Your task to perform on an android device: open app "Messenger Lite" (install if not already installed) Image 0: 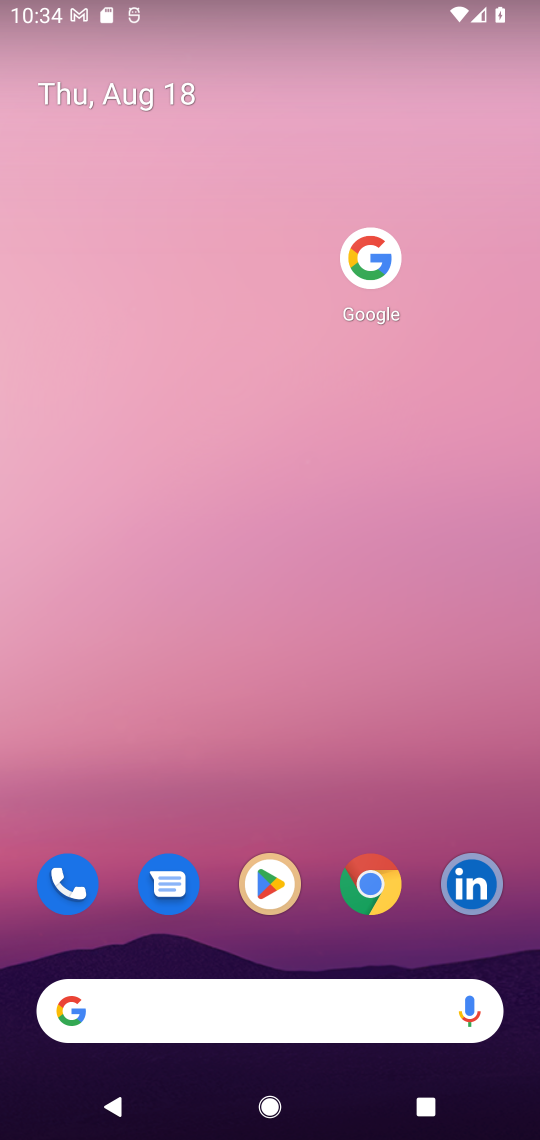
Step 0: click (269, 905)
Your task to perform on an android device: open app "Messenger Lite" (install if not already installed) Image 1: 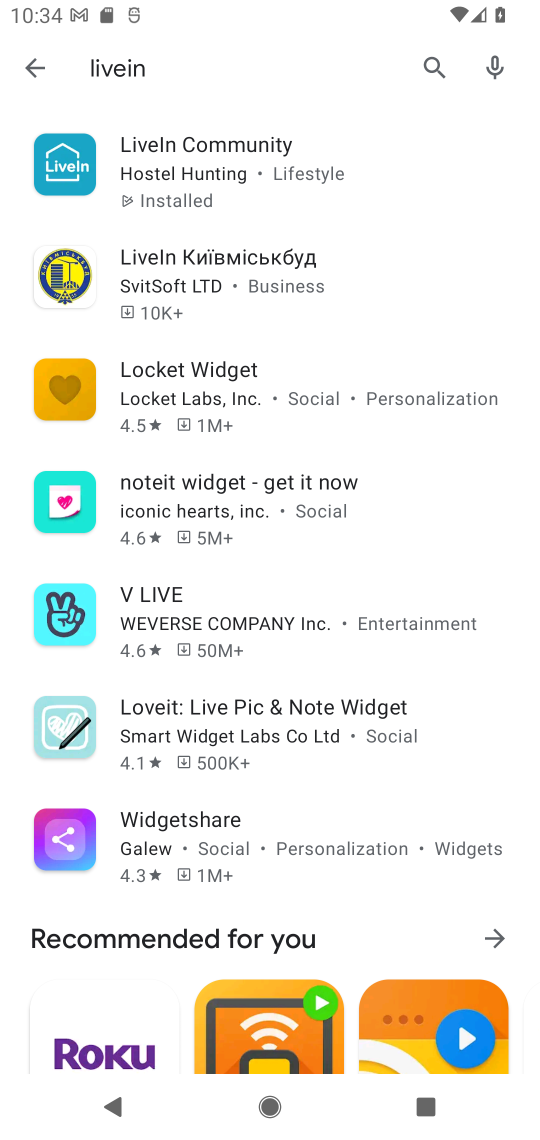
Step 1: click (438, 71)
Your task to perform on an android device: open app "Messenger Lite" (install if not already installed) Image 2: 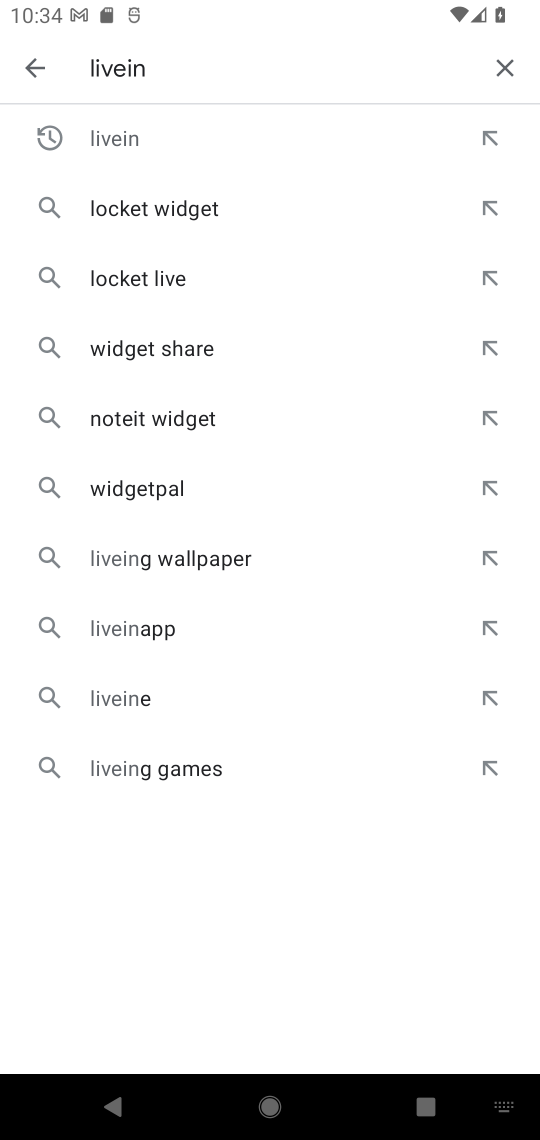
Step 2: click (493, 71)
Your task to perform on an android device: open app "Messenger Lite" (install if not already installed) Image 3: 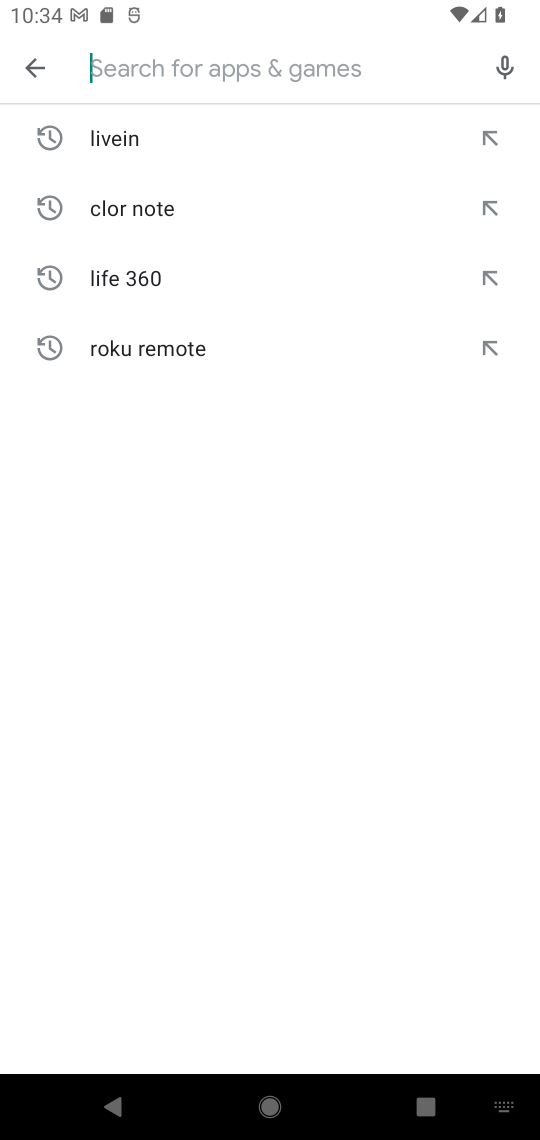
Step 3: type "messenger"
Your task to perform on an android device: open app "Messenger Lite" (install if not already installed) Image 4: 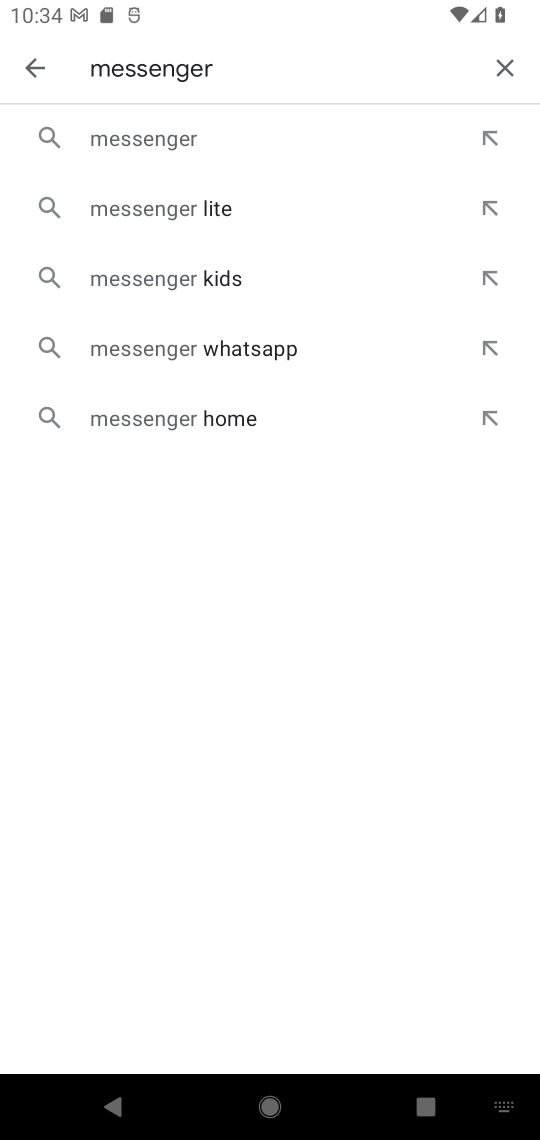
Step 4: click (175, 155)
Your task to perform on an android device: open app "Messenger Lite" (install if not already installed) Image 5: 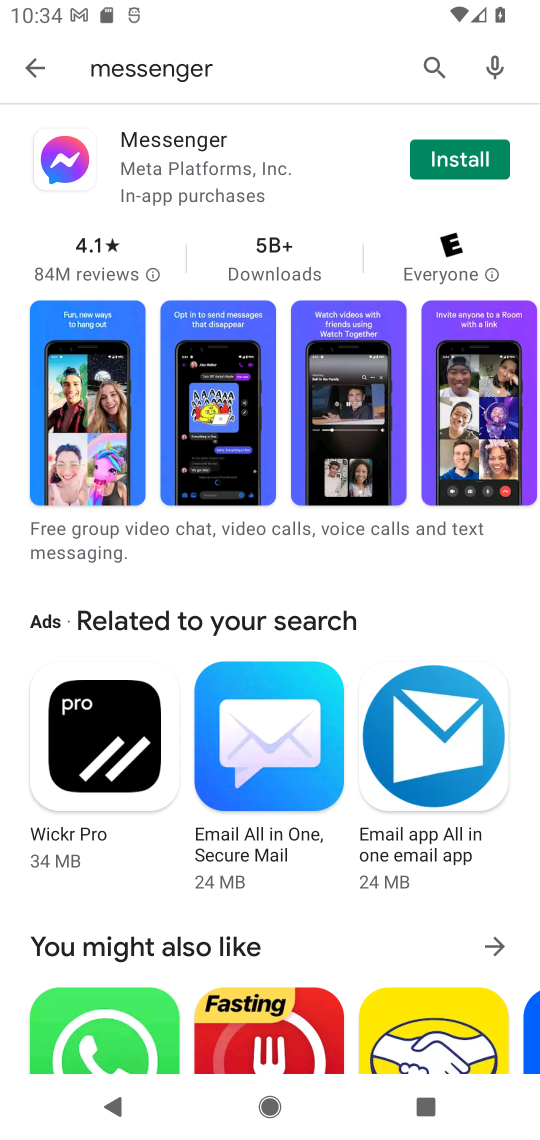
Step 5: click (431, 176)
Your task to perform on an android device: open app "Messenger Lite" (install if not already installed) Image 6: 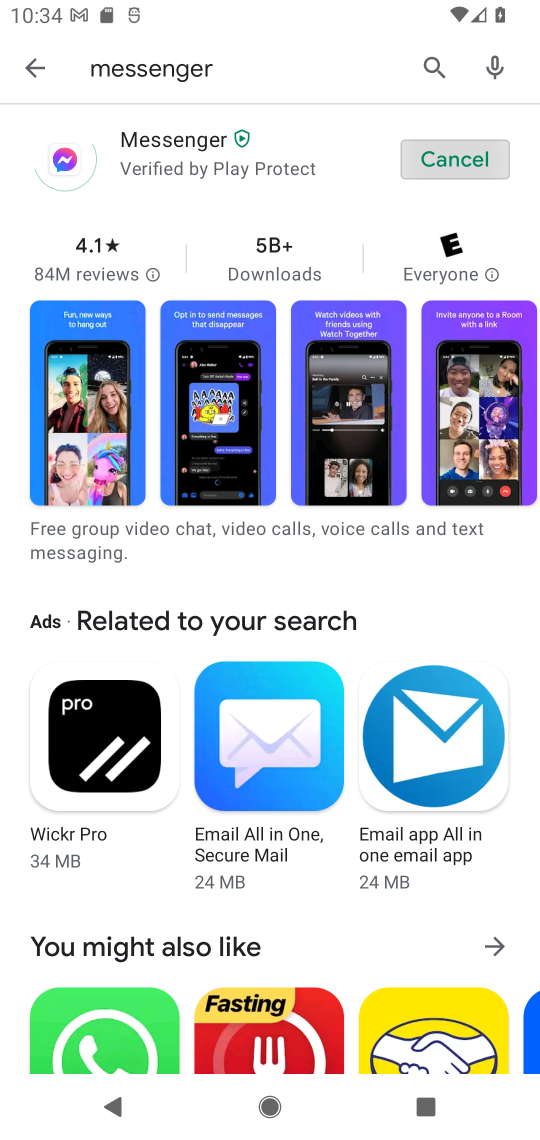
Step 6: task complete